Your task to perform on an android device: turn notification dots on Image 0: 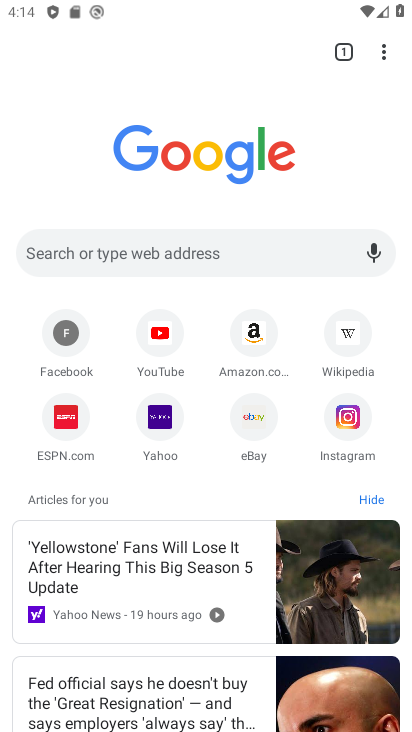
Step 0: press back button
Your task to perform on an android device: turn notification dots on Image 1: 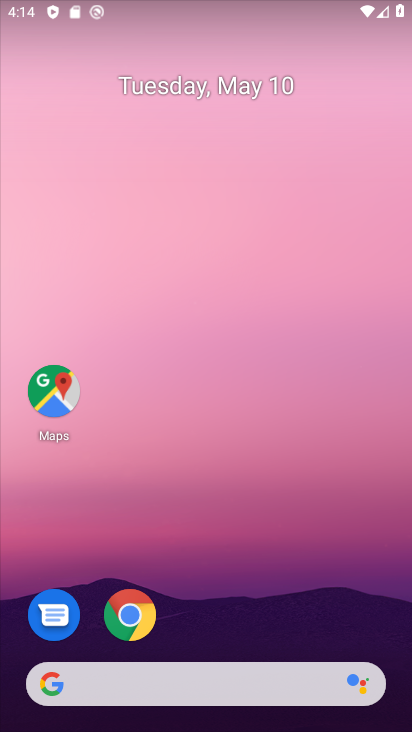
Step 1: drag from (259, 664) to (330, 158)
Your task to perform on an android device: turn notification dots on Image 2: 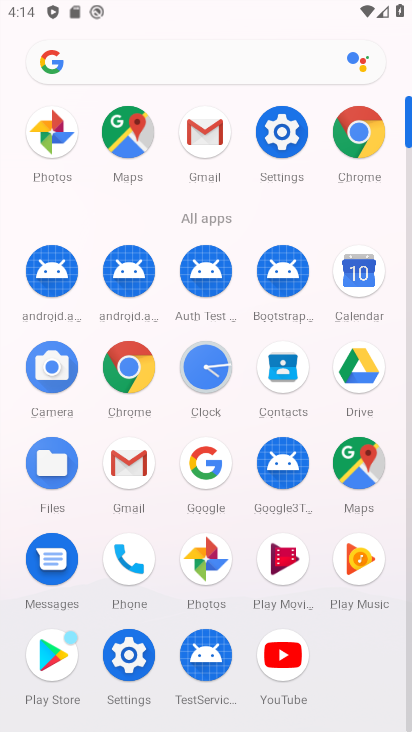
Step 2: click (134, 662)
Your task to perform on an android device: turn notification dots on Image 3: 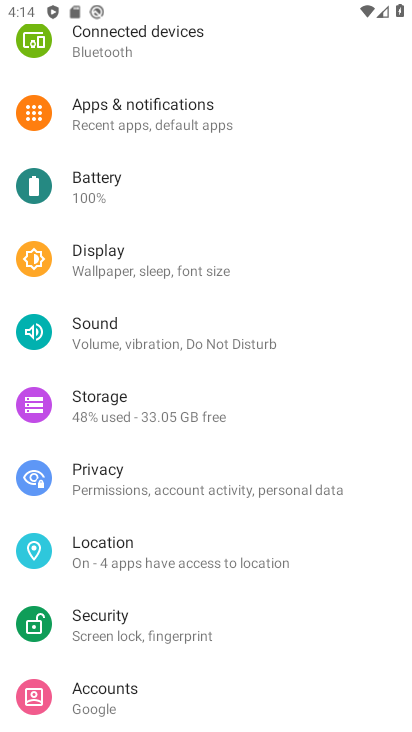
Step 3: click (248, 123)
Your task to perform on an android device: turn notification dots on Image 4: 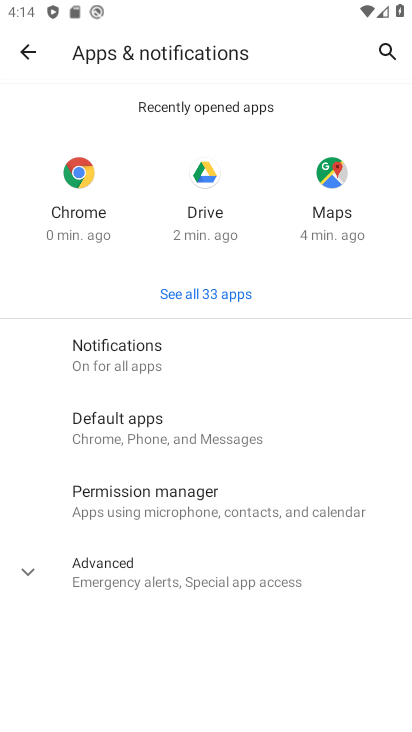
Step 4: click (174, 351)
Your task to perform on an android device: turn notification dots on Image 5: 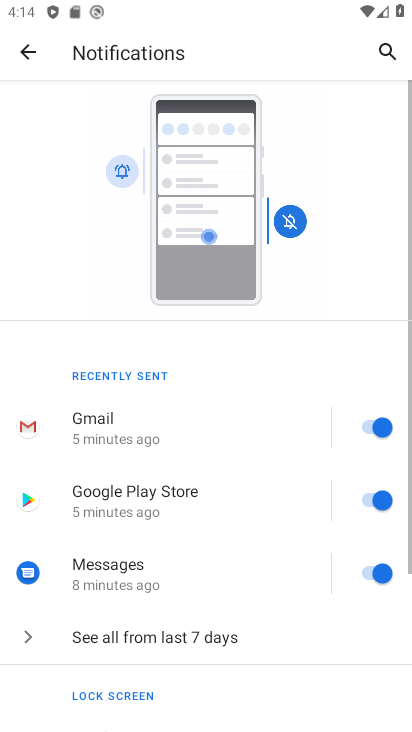
Step 5: drag from (197, 585) to (284, 218)
Your task to perform on an android device: turn notification dots on Image 6: 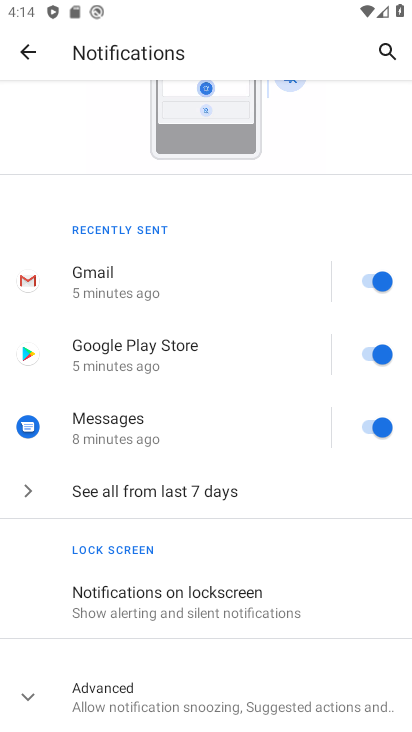
Step 6: click (205, 697)
Your task to perform on an android device: turn notification dots on Image 7: 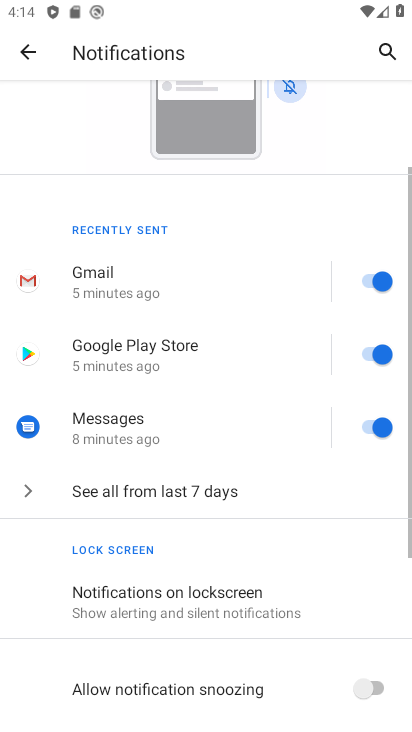
Step 7: task complete